Your task to perform on an android device: Go to network settings Image 0: 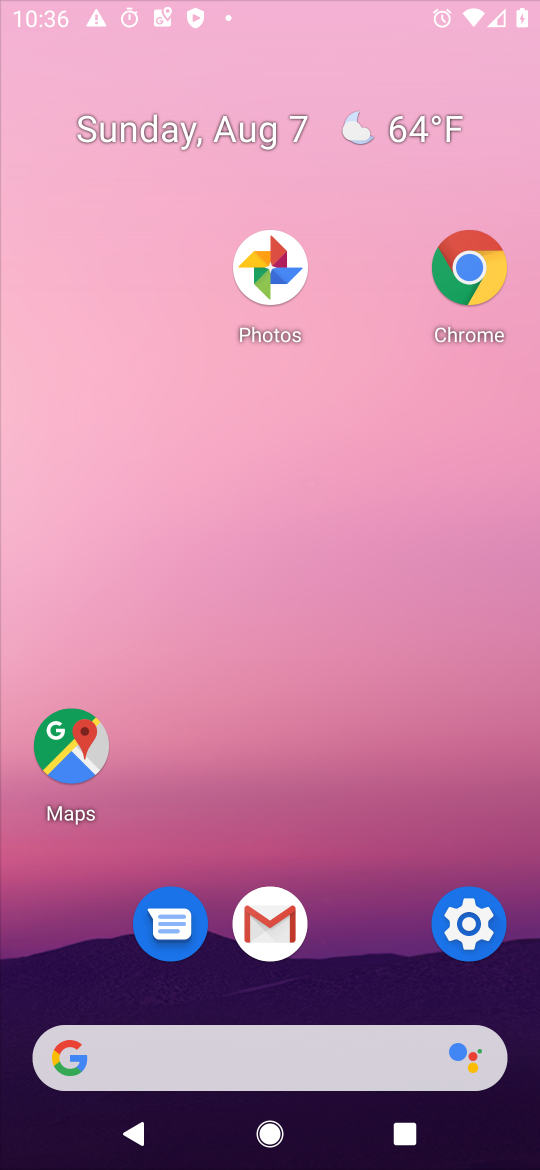
Step 0: press home button
Your task to perform on an android device: Go to network settings Image 1: 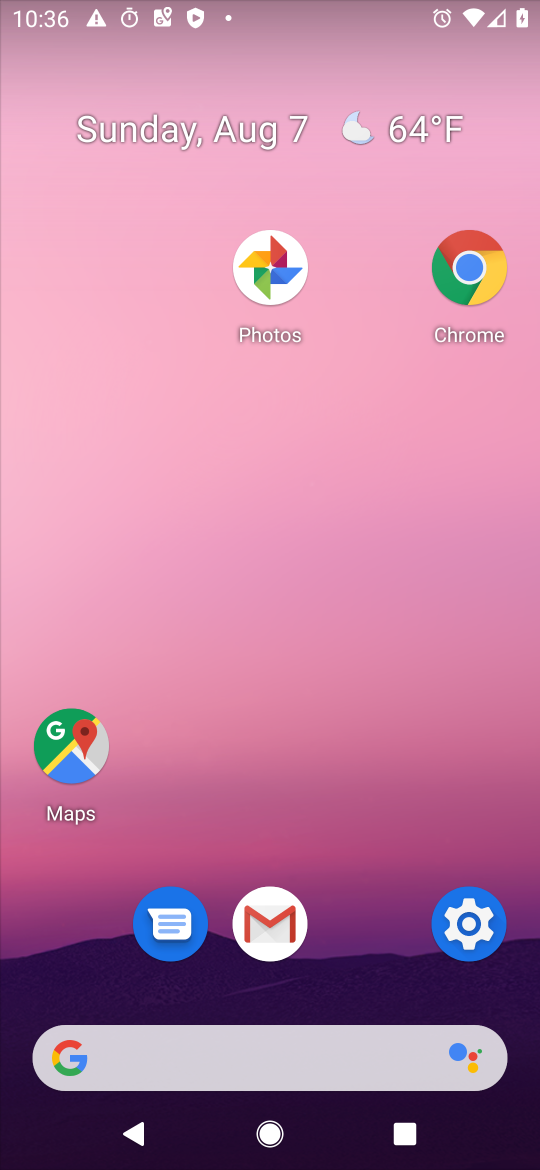
Step 1: drag from (346, 926) to (391, 207)
Your task to perform on an android device: Go to network settings Image 2: 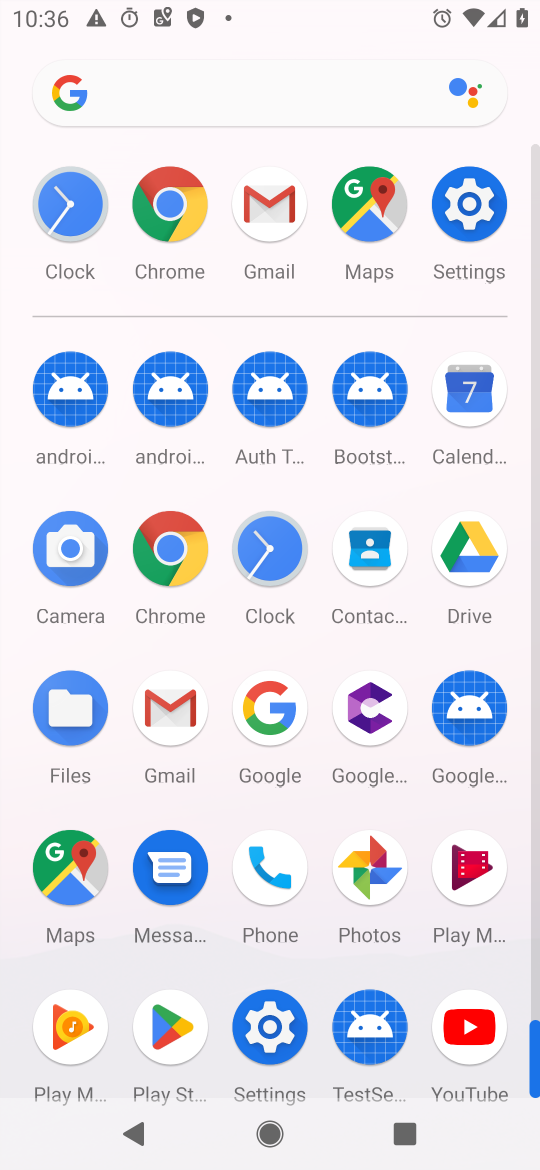
Step 2: click (444, 218)
Your task to perform on an android device: Go to network settings Image 3: 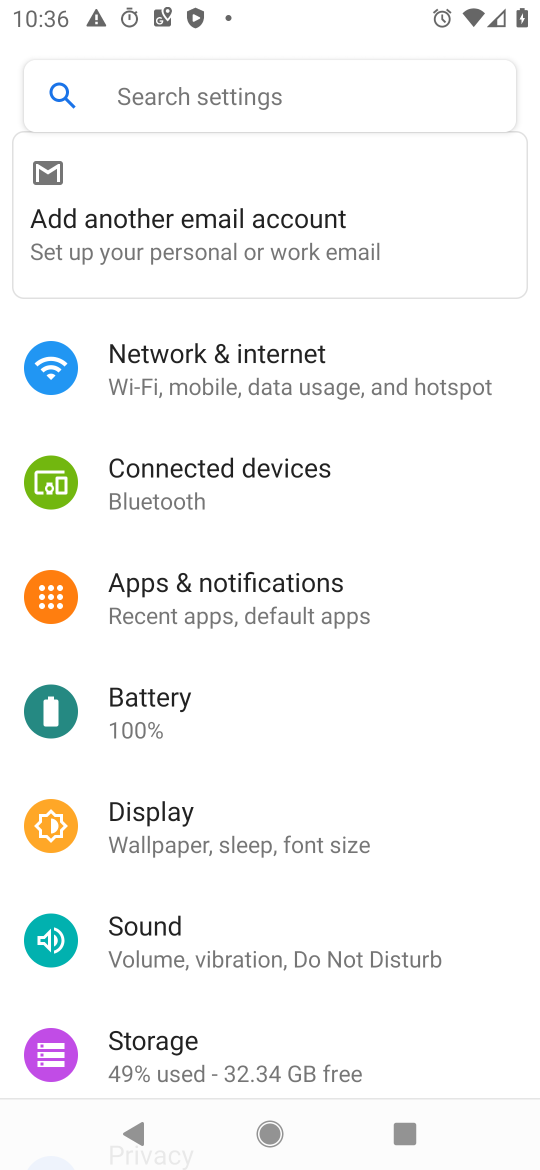
Step 3: click (194, 370)
Your task to perform on an android device: Go to network settings Image 4: 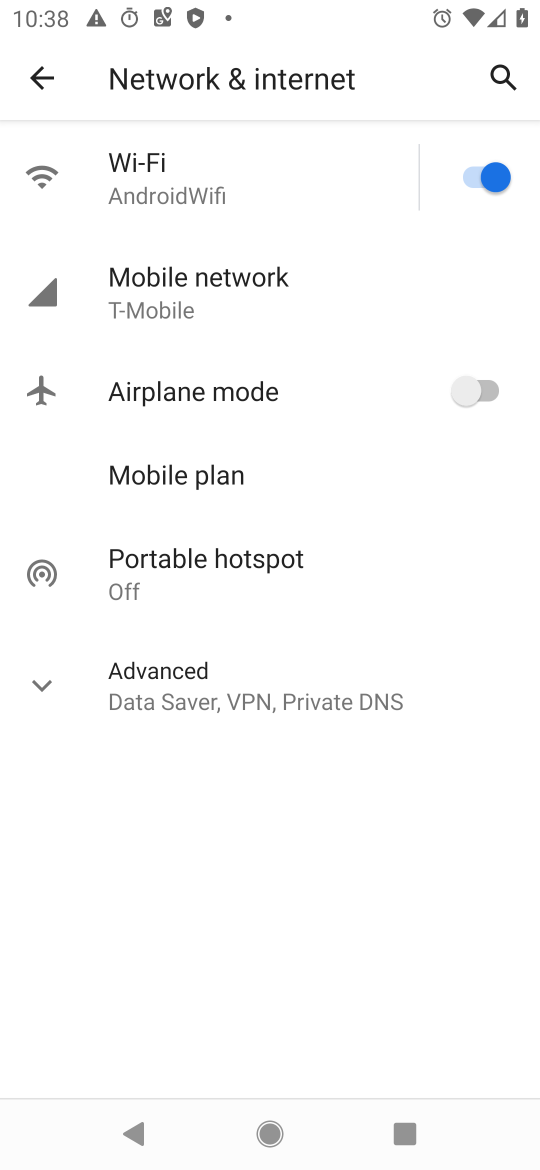
Step 4: task complete